Your task to perform on an android device: show emergency info Image 0: 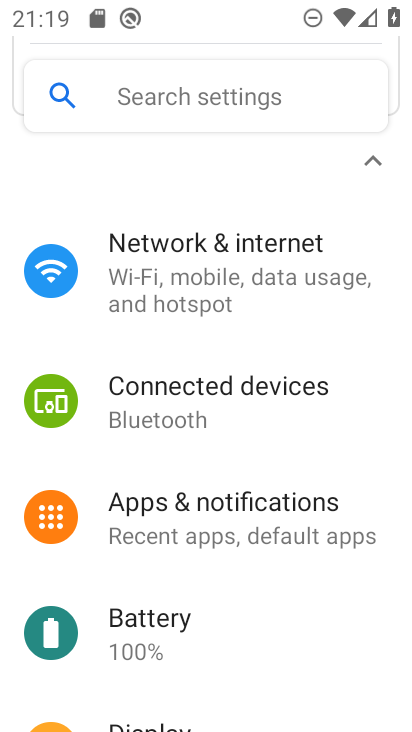
Step 0: press home button
Your task to perform on an android device: show emergency info Image 1: 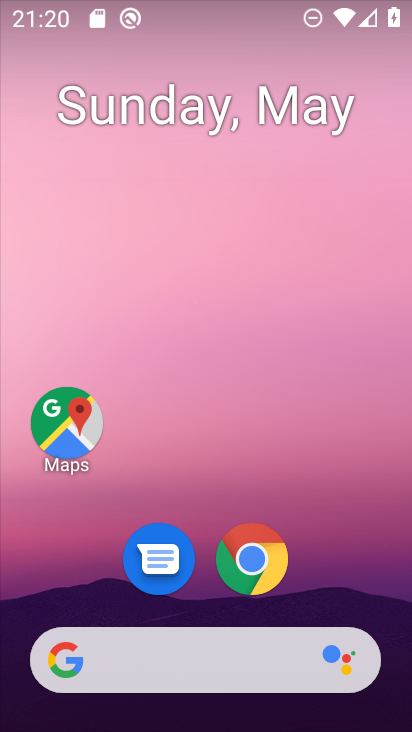
Step 1: drag from (275, 687) to (255, 252)
Your task to perform on an android device: show emergency info Image 2: 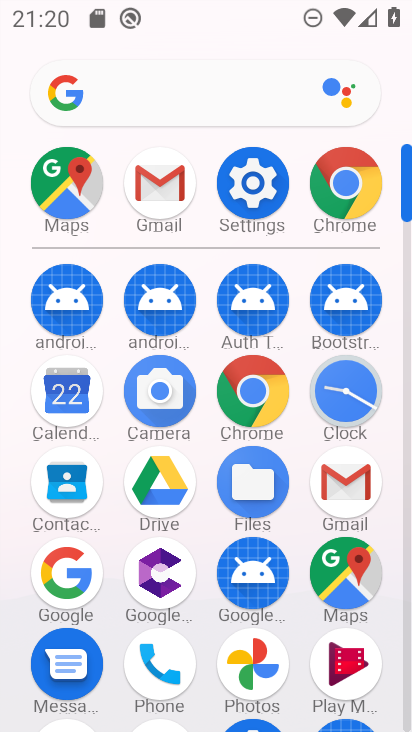
Step 2: click (239, 163)
Your task to perform on an android device: show emergency info Image 3: 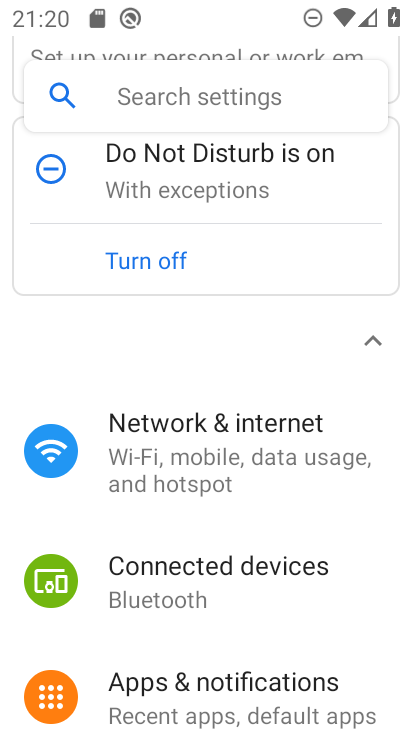
Step 3: click (168, 104)
Your task to perform on an android device: show emergency info Image 4: 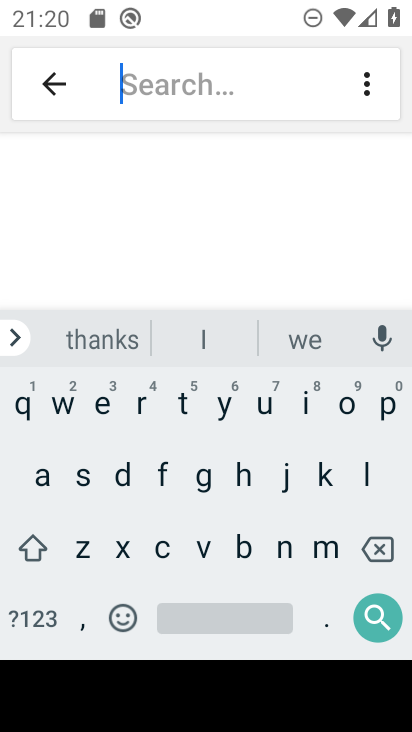
Step 4: click (95, 406)
Your task to perform on an android device: show emergency info Image 5: 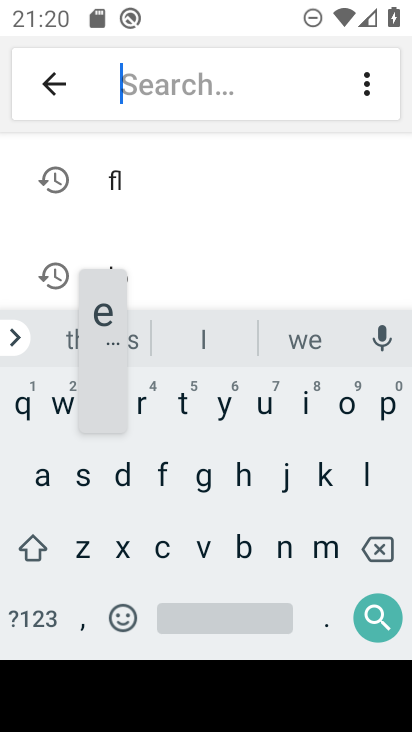
Step 5: click (340, 573)
Your task to perform on an android device: show emergency info Image 6: 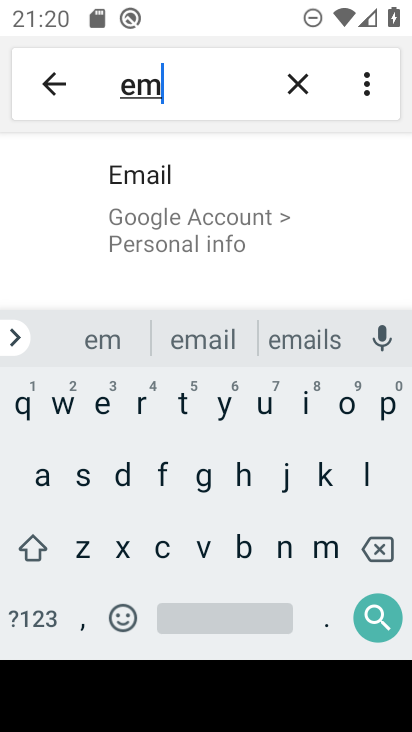
Step 6: click (100, 409)
Your task to perform on an android device: show emergency info Image 7: 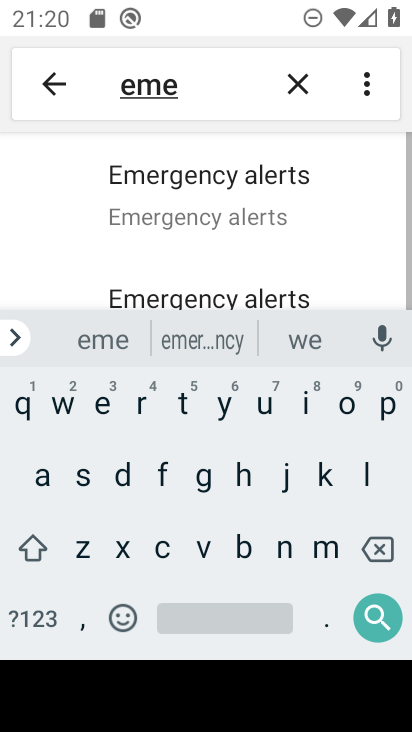
Step 7: click (198, 348)
Your task to perform on an android device: show emergency info Image 8: 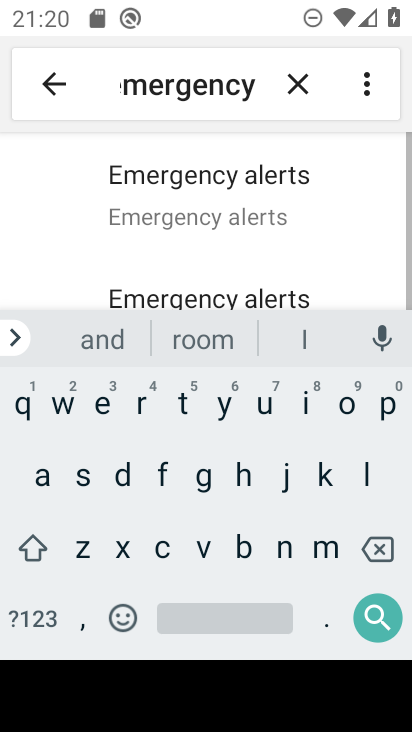
Step 8: click (305, 401)
Your task to perform on an android device: show emergency info Image 9: 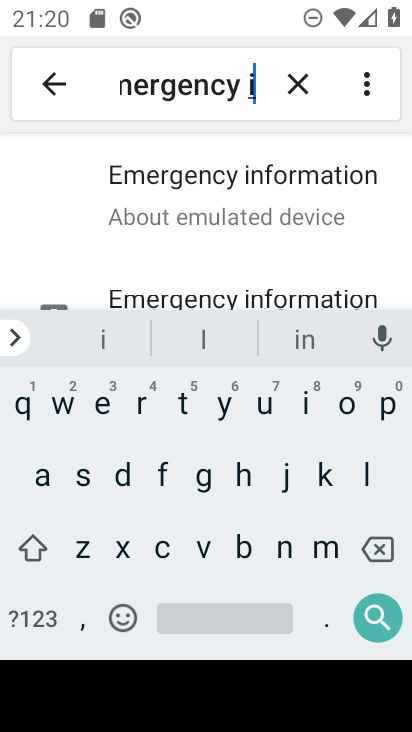
Step 9: click (271, 224)
Your task to perform on an android device: show emergency info Image 10: 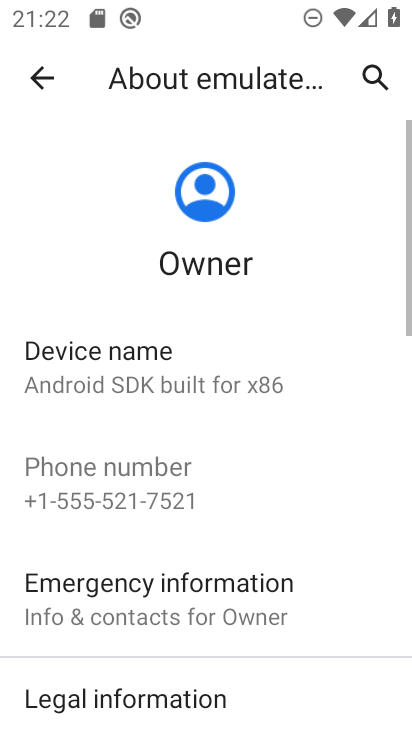
Step 10: task complete